Your task to perform on an android device: Show me productivity apps on the Play Store Image 0: 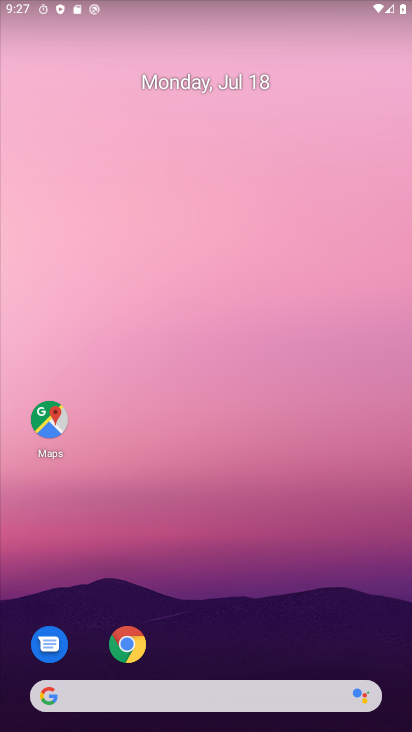
Step 0: press home button
Your task to perform on an android device: Show me productivity apps on the Play Store Image 1: 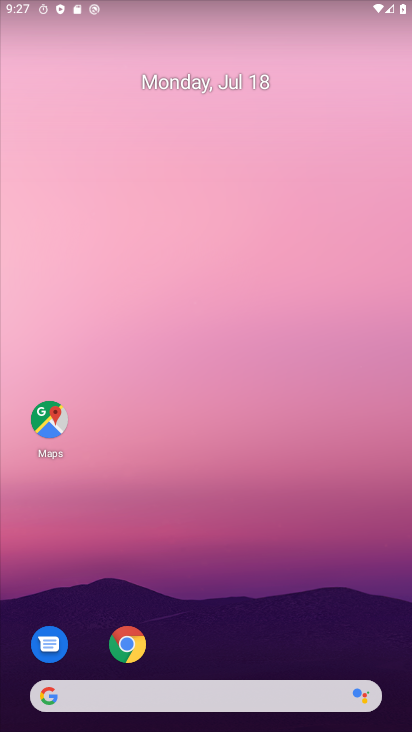
Step 1: drag from (202, 662) to (253, 7)
Your task to perform on an android device: Show me productivity apps on the Play Store Image 2: 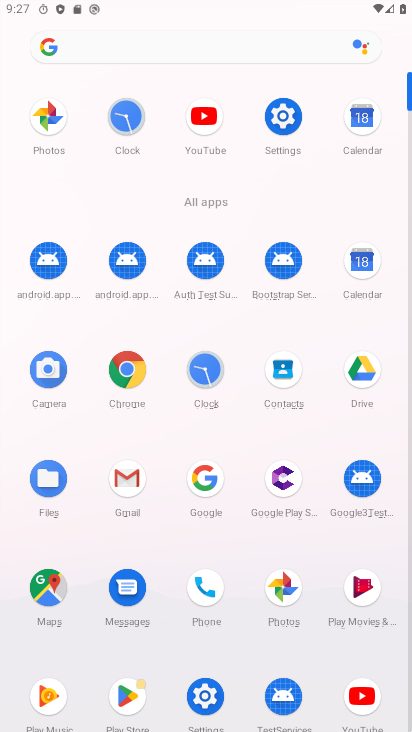
Step 2: click (120, 687)
Your task to perform on an android device: Show me productivity apps on the Play Store Image 3: 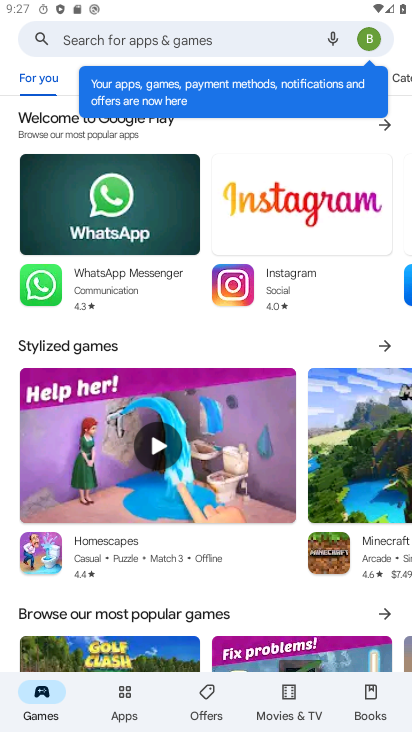
Step 3: click (122, 692)
Your task to perform on an android device: Show me productivity apps on the Play Store Image 4: 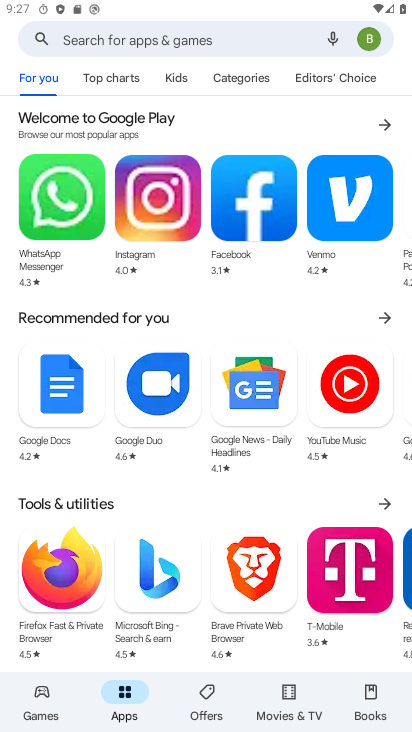
Step 4: drag from (203, 641) to (213, 346)
Your task to perform on an android device: Show me productivity apps on the Play Store Image 5: 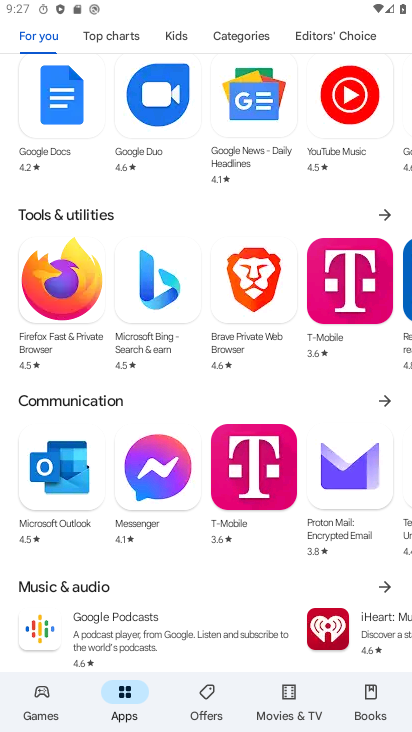
Step 5: click (242, 35)
Your task to perform on an android device: Show me productivity apps on the Play Store Image 6: 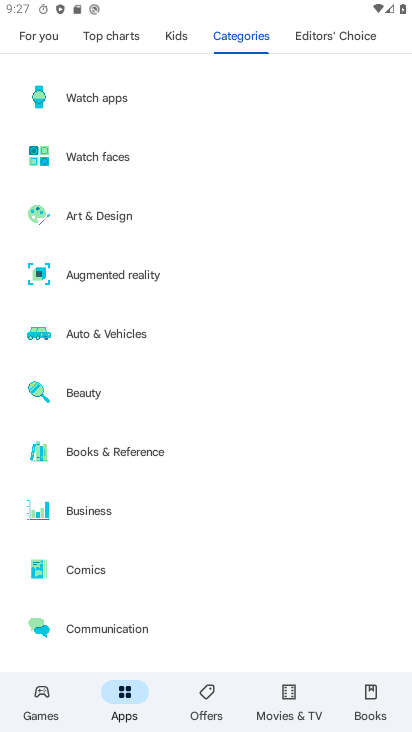
Step 6: drag from (199, 601) to (217, 68)
Your task to perform on an android device: Show me productivity apps on the Play Store Image 7: 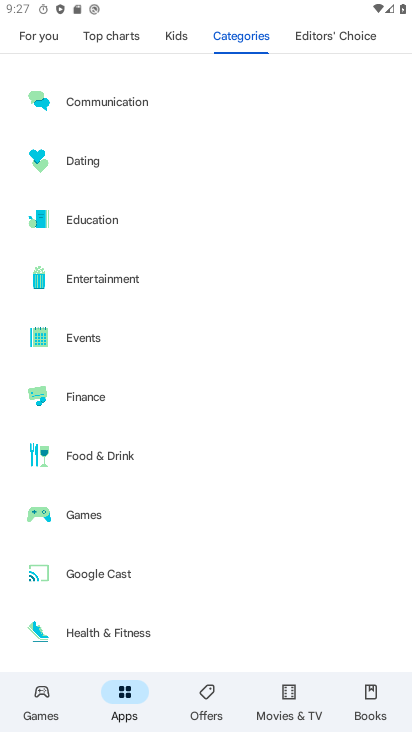
Step 7: drag from (191, 643) to (213, 90)
Your task to perform on an android device: Show me productivity apps on the Play Store Image 8: 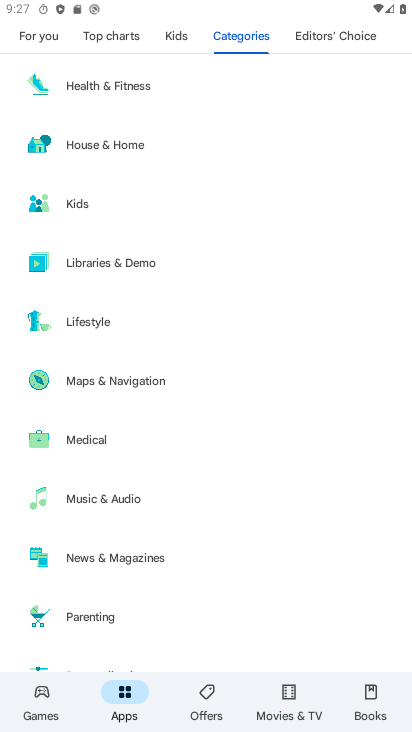
Step 8: drag from (205, 614) to (214, 151)
Your task to perform on an android device: Show me productivity apps on the Play Store Image 9: 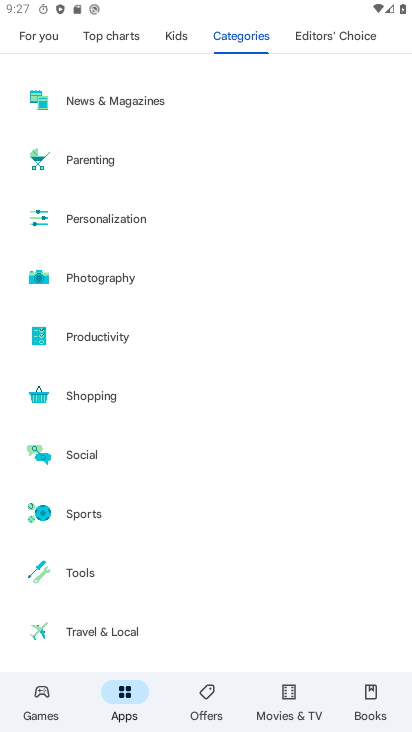
Step 9: click (56, 334)
Your task to perform on an android device: Show me productivity apps on the Play Store Image 10: 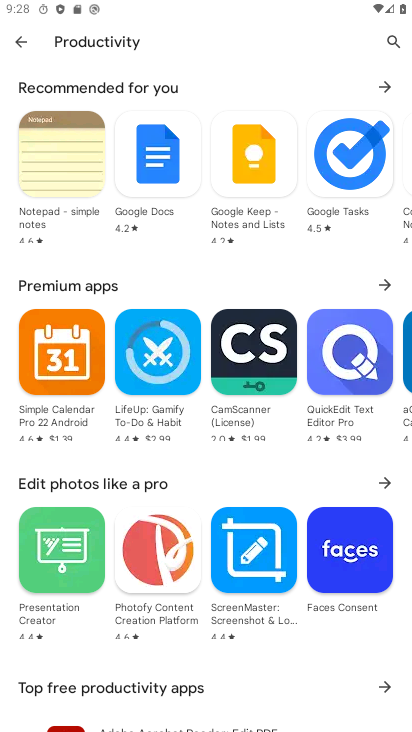
Step 10: drag from (237, 478) to (249, 222)
Your task to perform on an android device: Show me productivity apps on the Play Store Image 11: 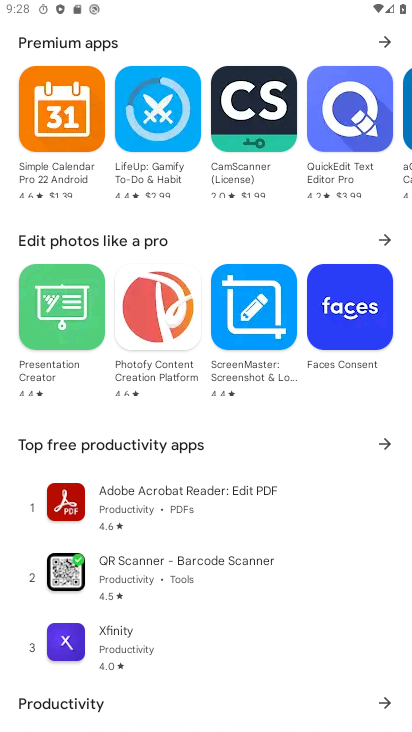
Step 11: drag from (221, 625) to (227, 356)
Your task to perform on an android device: Show me productivity apps on the Play Store Image 12: 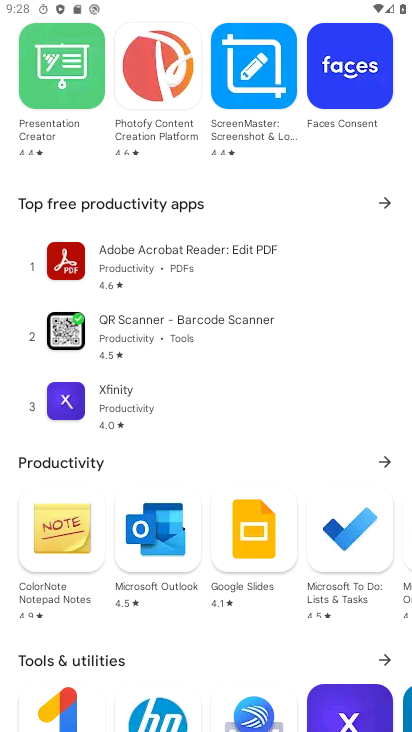
Step 12: click (383, 456)
Your task to perform on an android device: Show me productivity apps on the Play Store Image 13: 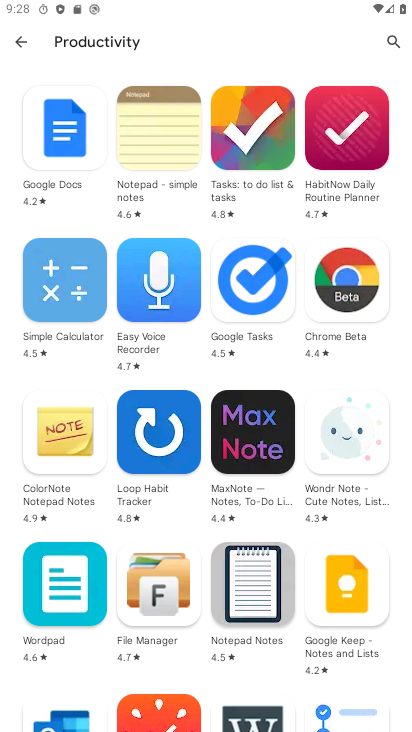
Step 13: task complete